Your task to perform on an android device: turn on the 24-hour format for clock Image 0: 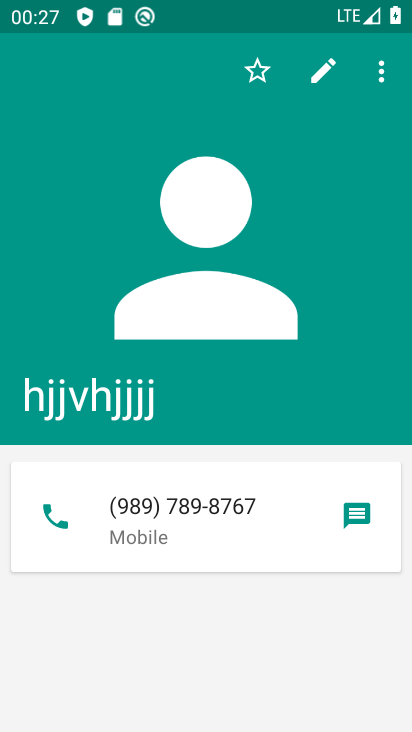
Step 0: press home button
Your task to perform on an android device: turn on the 24-hour format for clock Image 1: 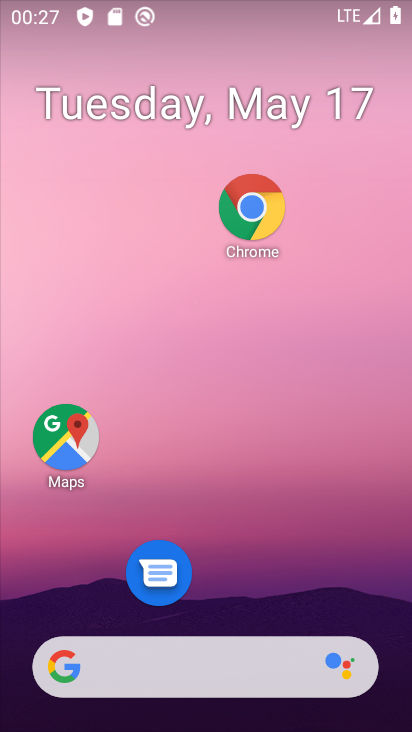
Step 1: drag from (228, 515) to (311, 106)
Your task to perform on an android device: turn on the 24-hour format for clock Image 2: 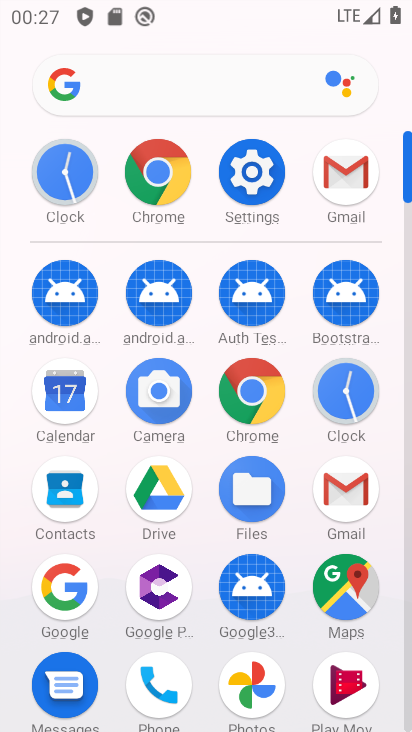
Step 2: click (355, 380)
Your task to perform on an android device: turn on the 24-hour format for clock Image 3: 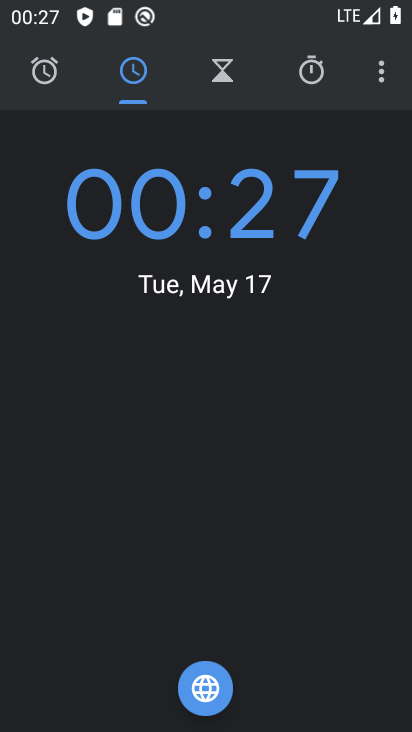
Step 3: click (373, 74)
Your task to perform on an android device: turn on the 24-hour format for clock Image 4: 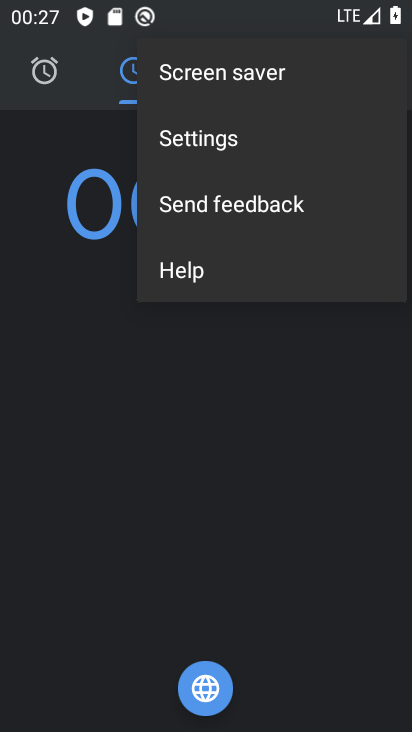
Step 4: click (274, 504)
Your task to perform on an android device: turn on the 24-hour format for clock Image 5: 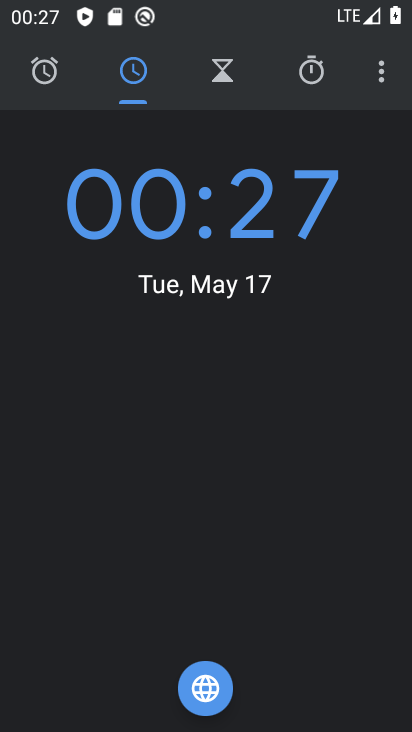
Step 5: click (379, 64)
Your task to perform on an android device: turn on the 24-hour format for clock Image 6: 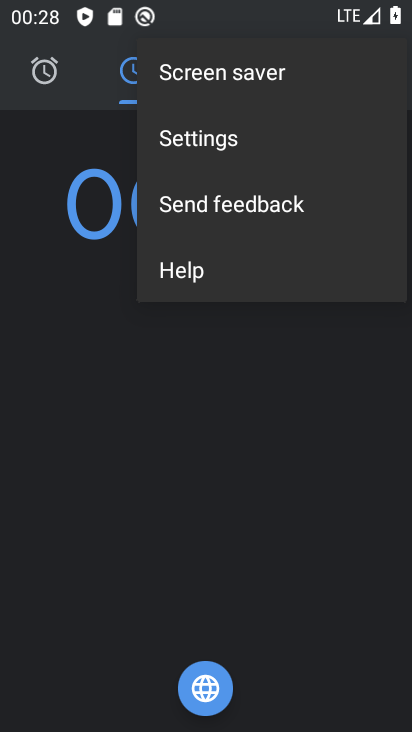
Step 6: click (266, 146)
Your task to perform on an android device: turn on the 24-hour format for clock Image 7: 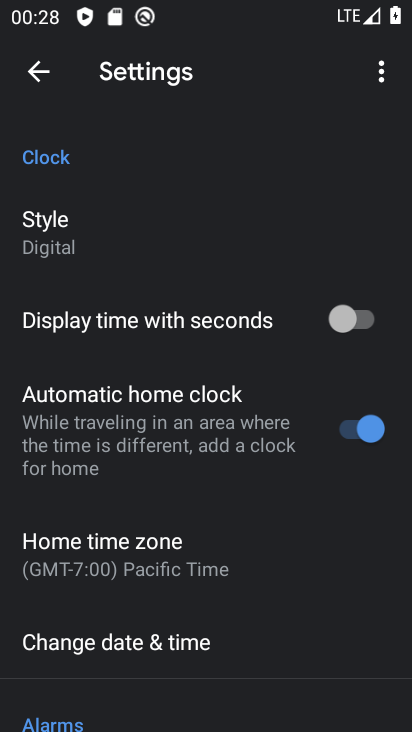
Step 7: click (177, 648)
Your task to perform on an android device: turn on the 24-hour format for clock Image 8: 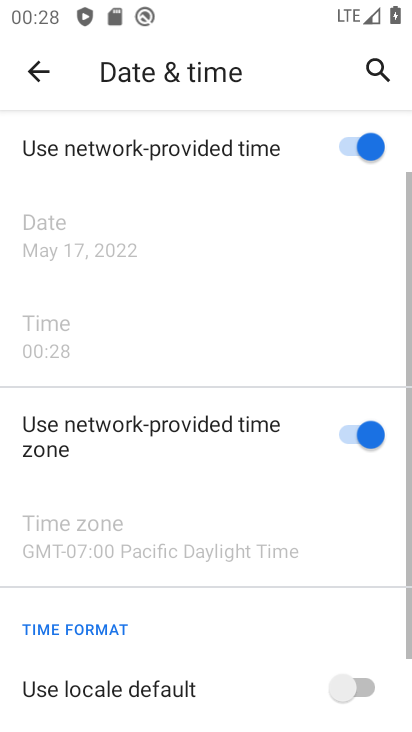
Step 8: task complete